Your task to perform on an android device: empty trash in the gmail app Image 0: 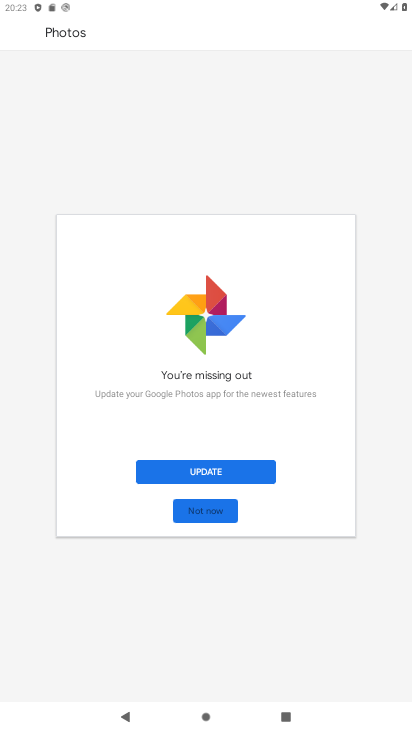
Step 0: press home button
Your task to perform on an android device: empty trash in the gmail app Image 1: 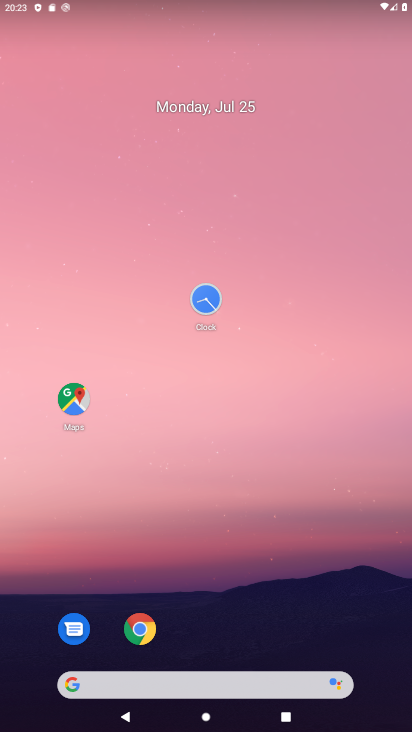
Step 1: drag from (202, 672) to (204, 238)
Your task to perform on an android device: empty trash in the gmail app Image 2: 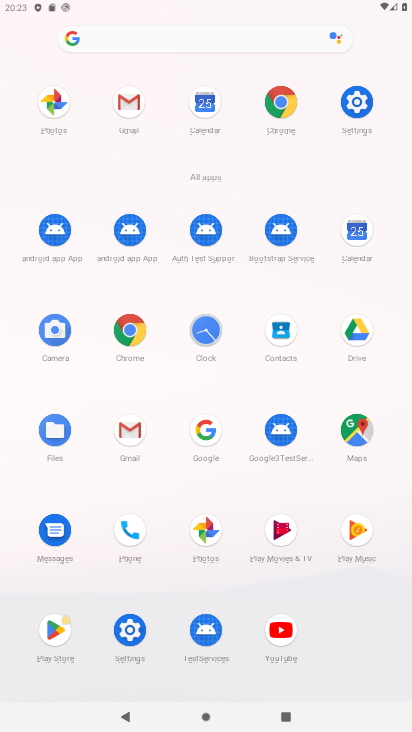
Step 2: click (124, 438)
Your task to perform on an android device: empty trash in the gmail app Image 3: 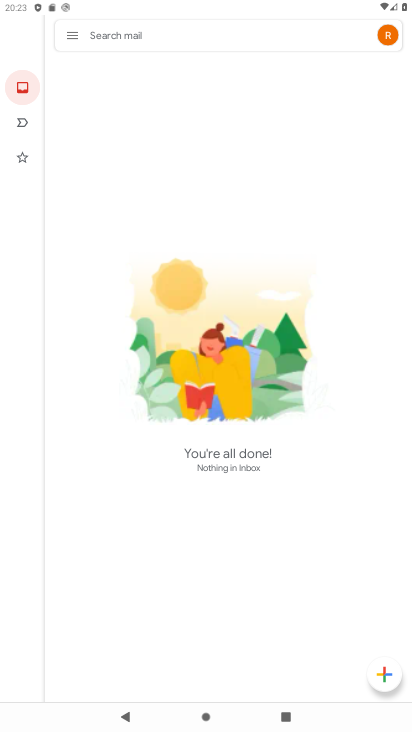
Step 3: click (67, 27)
Your task to perform on an android device: empty trash in the gmail app Image 4: 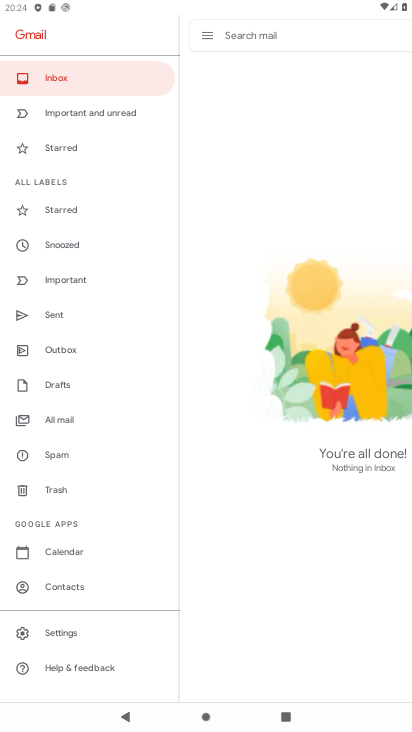
Step 4: click (50, 492)
Your task to perform on an android device: empty trash in the gmail app Image 5: 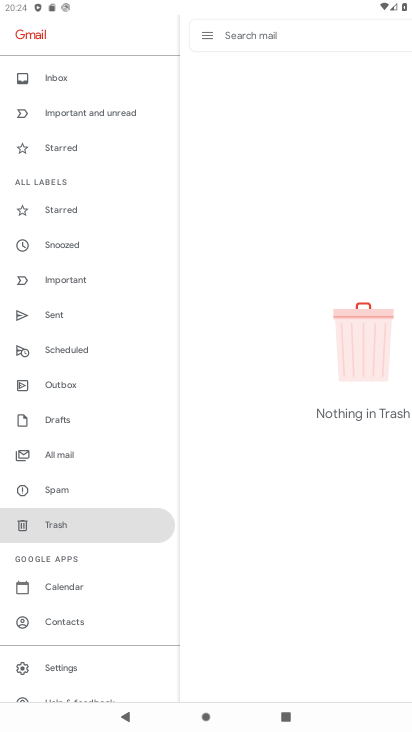
Step 5: task complete